Your task to perform on an android device: star an email in the gmail app Image 0: 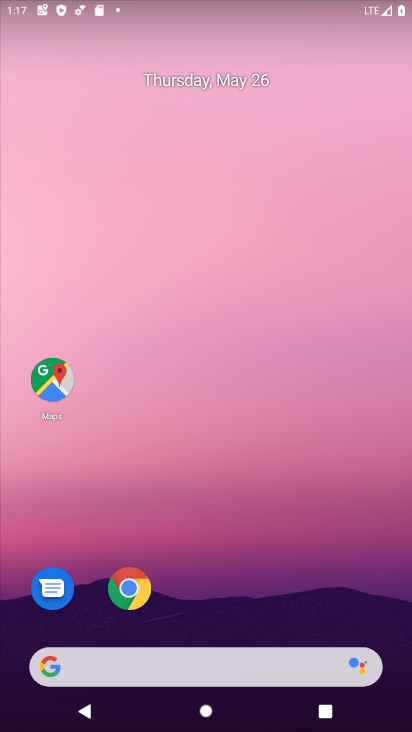
Step 0: drag from (392, 688) to (411, 51)
Your task to perform on an android device: star an email in the gmail app Image 1: 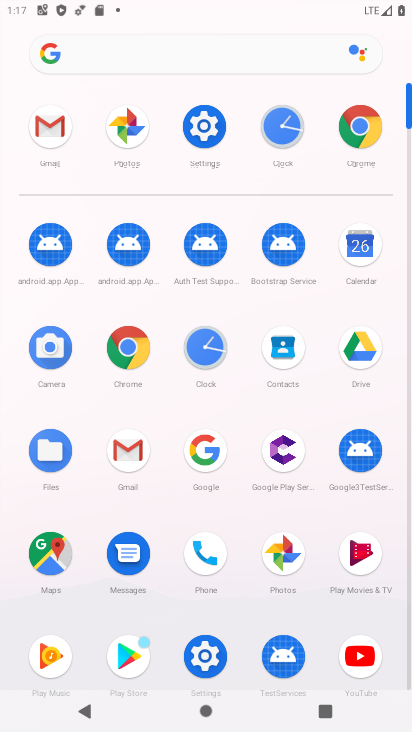
Step 1: click (137, 454)
Your task to perform on an android device: star an email in the gmail app Image 2: 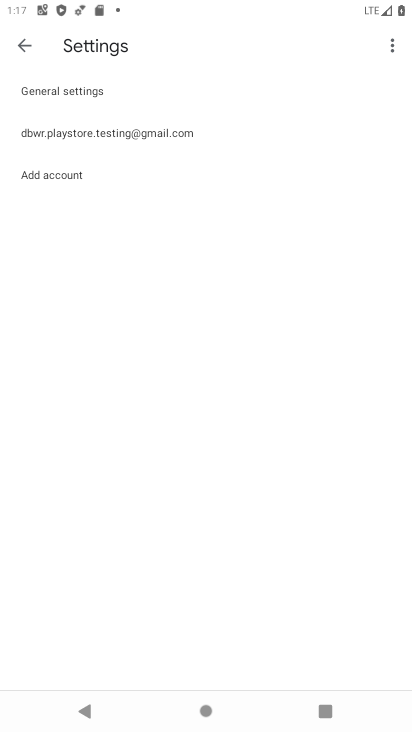
Step 2: click (15, 42)
Your task to perform on an android device: star an email in the gmail app Image 3: 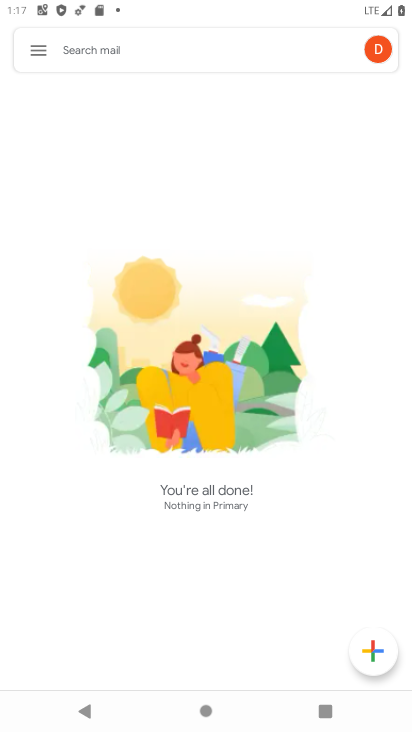
Step 3: click (36, 45)
Your task to perform on an android device: star an email in the gmail app Image 4: 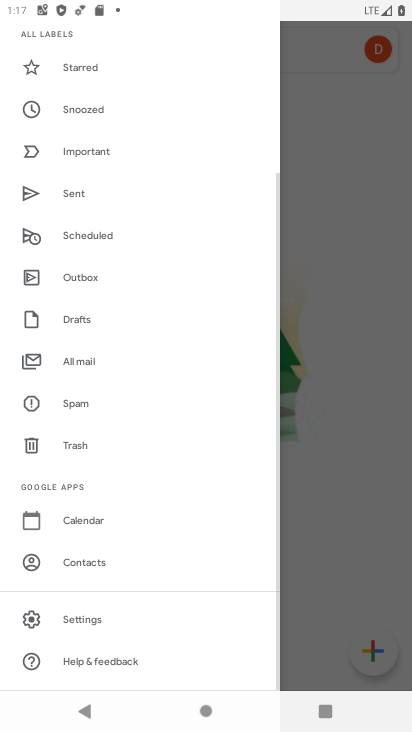
Step 4: drag from (193, 105) to (197, 559)
Your task to perform on an android device: star an email in the gmail app Image 5: 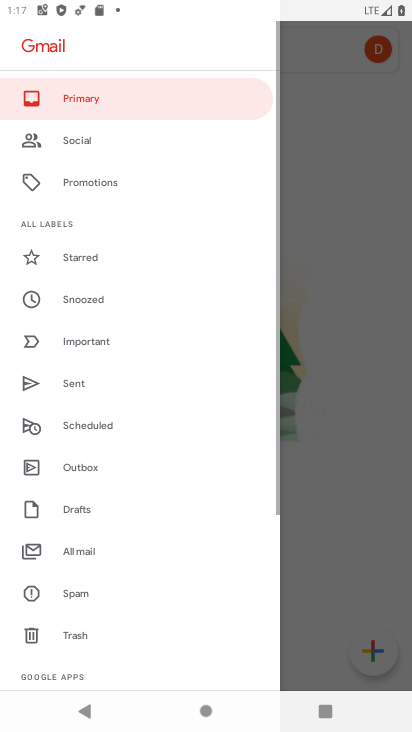
Step 5: click (111, 105)
Your task to perform on an android device: star an email in the gmail app Image 6: 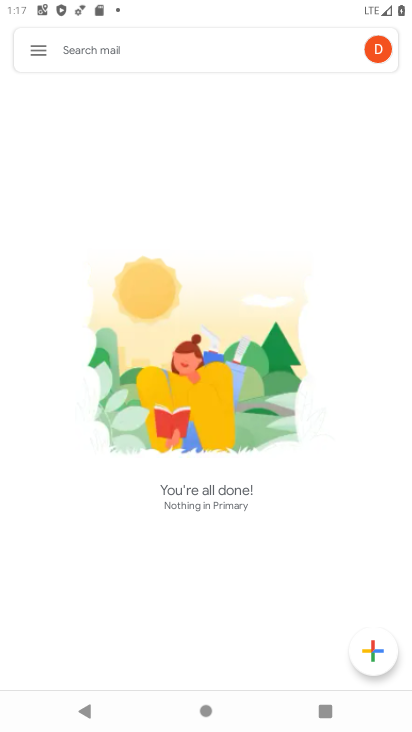
Step 6: click (26, 49)
Your task to perform on an android device: star an email in the gmail app Image 7: 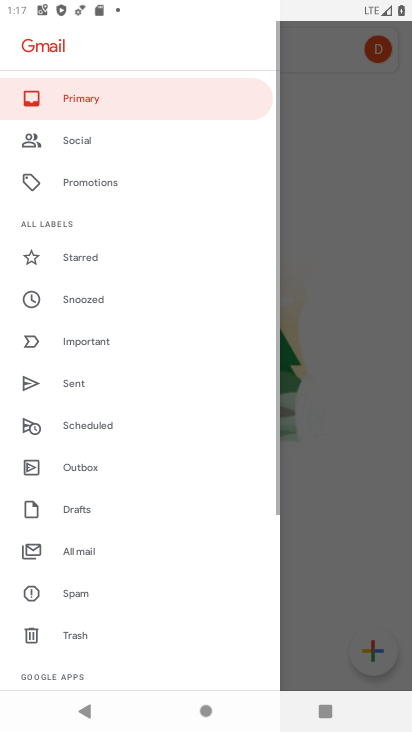
Step 7: click (69, 97)
Your task to perform on an android device: star an email in the gmail app Image 8: 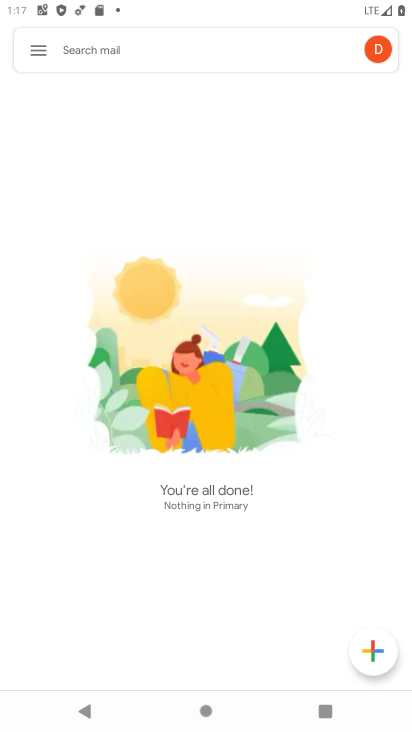
Step 8: task complete